Your task to perform on an android device: change the clock display to show seconds Image 0: 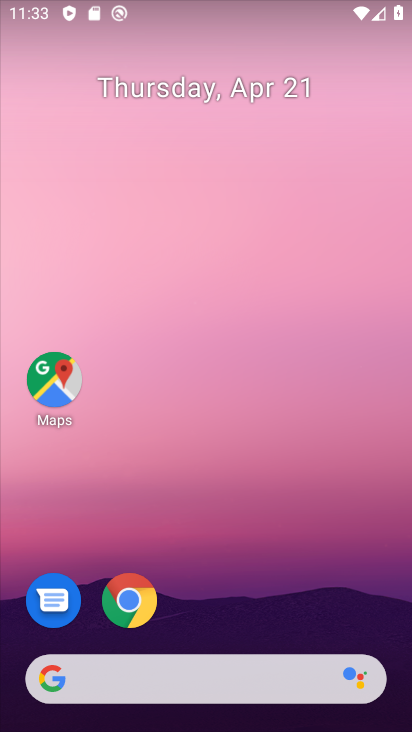
Step 0: drag from (260, 616) to (292, 152)
Your task to perform on an android device: change the clock display to show seconds Image 1: 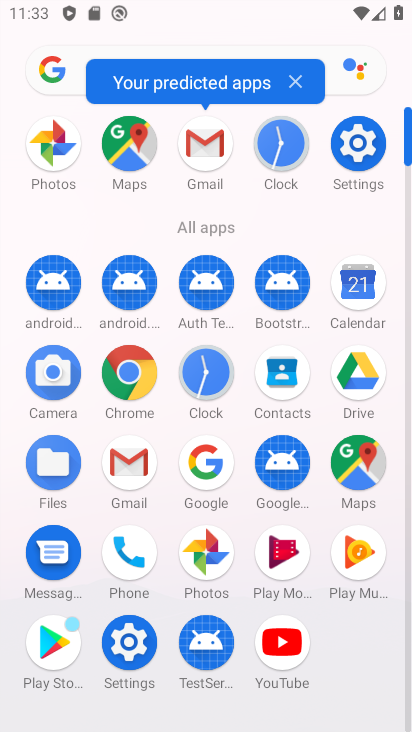
Step 1: click (203, 378)
Your task to perform on an android device: change the clock display to show seconds Image 2: 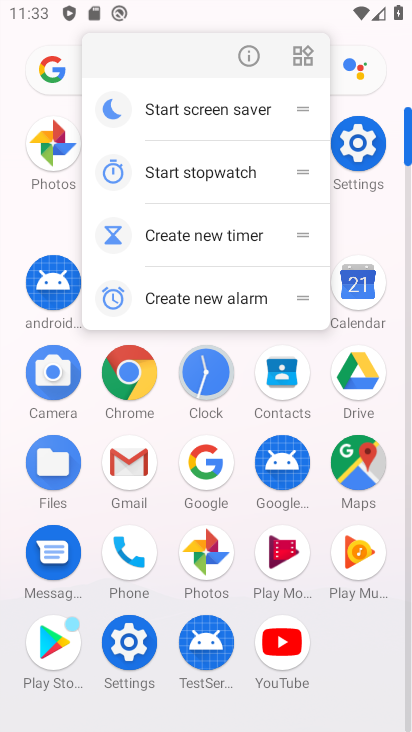
Step 2: click (217, 372)
Your task to perform on an android device: change the clock display to show seconds Image 3: 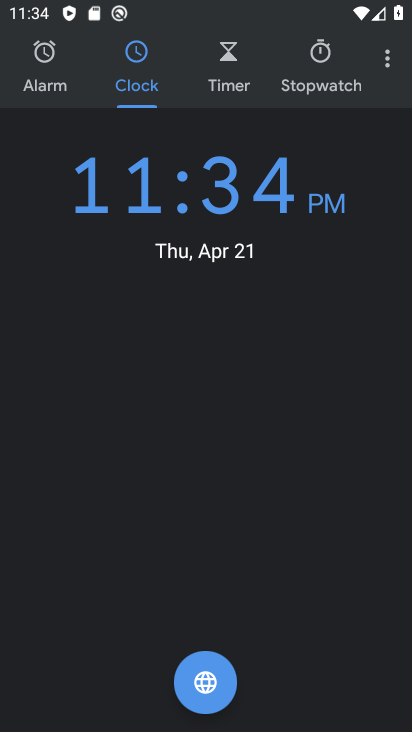
Step 3: press home button
Your task to perform on an android device: change the clock display to show seconds Image 4: 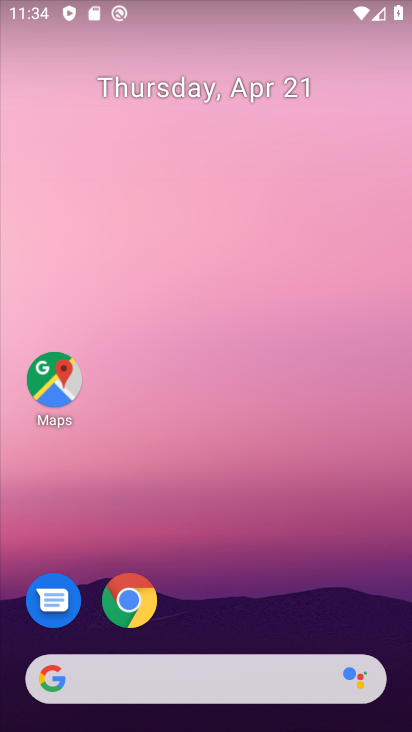
Step 4: drag from (272, 580) to (287, 169)
Your task to perform on an android device: change the clock display to show seconds Image 5: 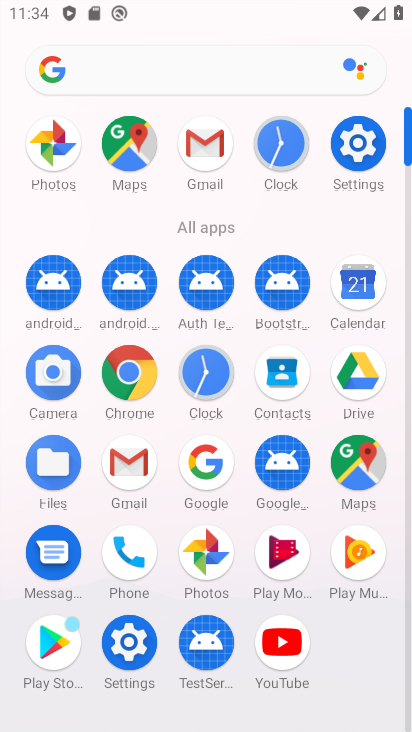
Step 5: click (211, 376)
Your task to perform on an android device: change the clock display to show seconds Image 6: 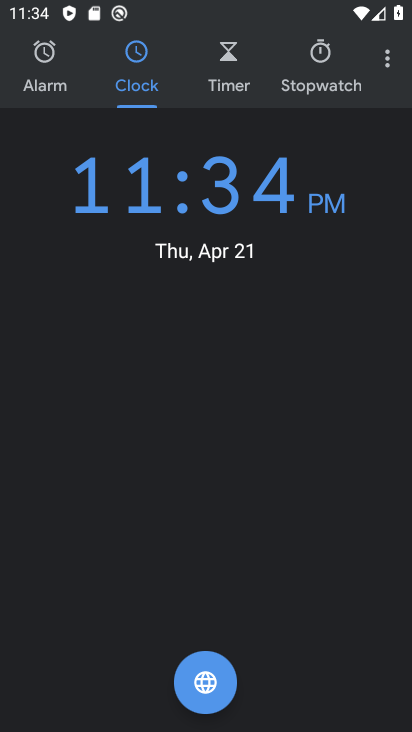
Step 6: click (390, 71)
Your task to perform on an android device: change the clock display to show seconds Image 7: 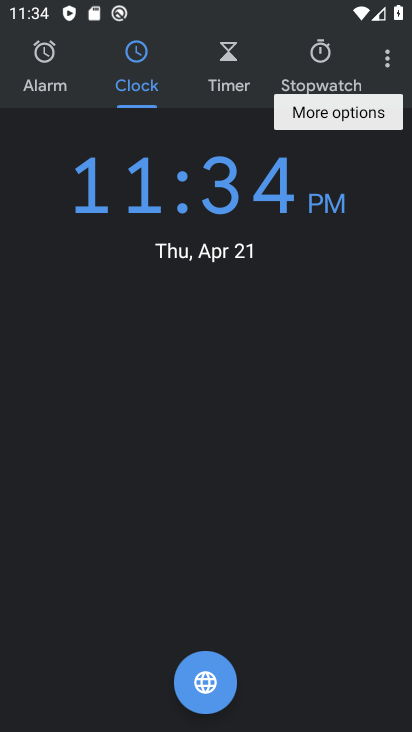
Step 7: click (389, 62)
Your task to perform on an android device: change the clock display to show seconds Image 8: 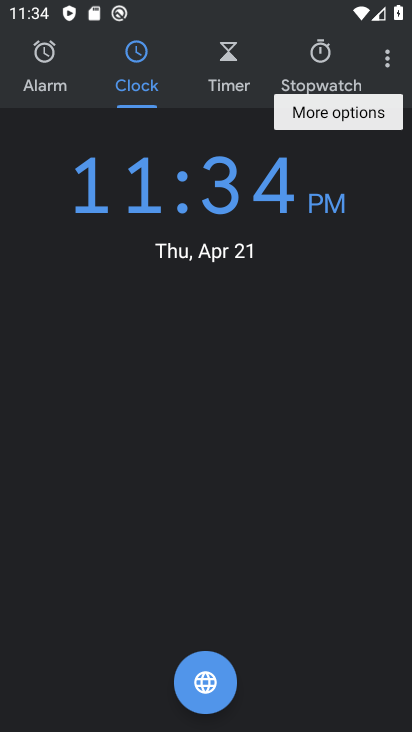
Step 8: click (387, 71)
Your task to perform on an android device: change the clock display to show seconds Image 9: 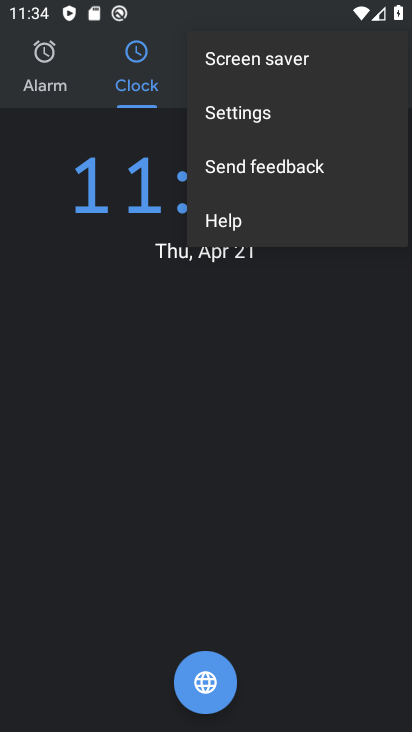
Step 9: click (332, 107)
Your task to perform on an android device: change the clock display to show seconds Image 10: 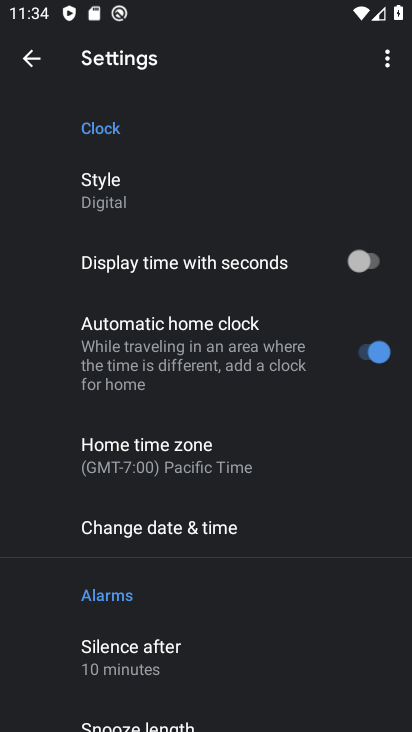
Step 10: drag from (198, 640) to (266, 630)
Your task to perform on an android device: change the clock display to show seconds Image 11: 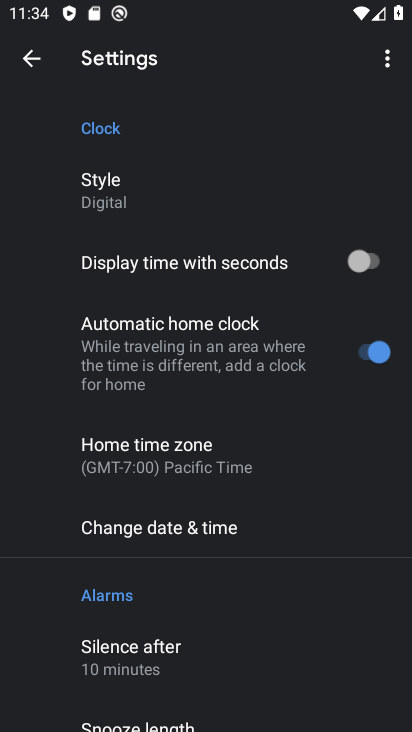
Step 11: click (374, 268)
Your task to perform on an android device: change the clock display to show seconds Image 12: 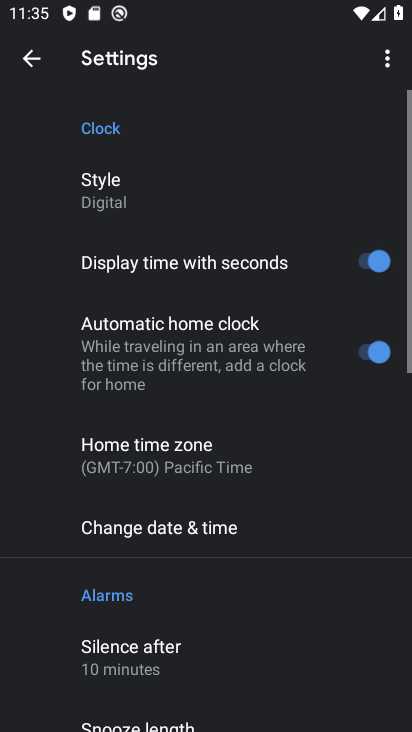
Step 12: task complete